Your task to perform on an android device: Search for pizza restaurants on Maps Image 0: 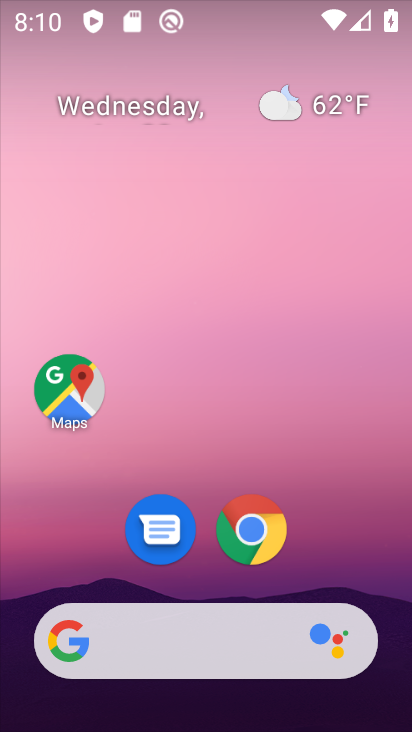
Step 0: drag from (237, 586) to (239, 90)
Your task to perform on an android device: Search for pizza restaurants on Maps Image 1: 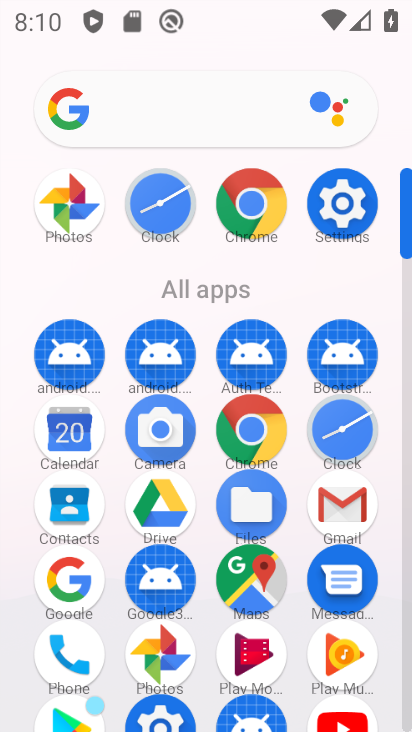
Step 1: click (259, 210)
Your task to perform on an android device: Search for pizza restaurants on Maps Image 2: 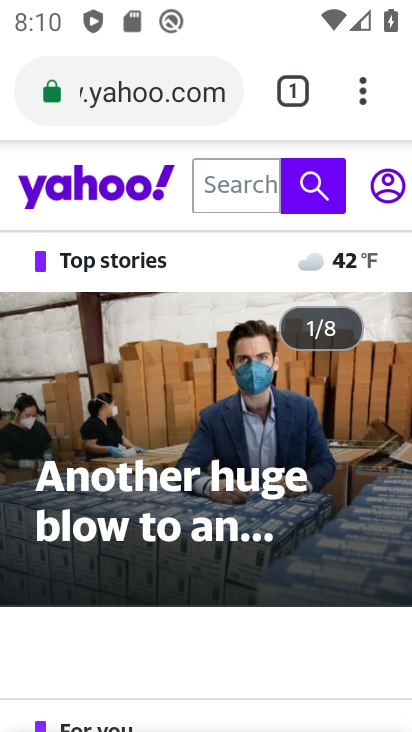
Step 2: click (367, 89)
Your task to perform on an android device: Search for pizza restaurants on Maps Image 3: 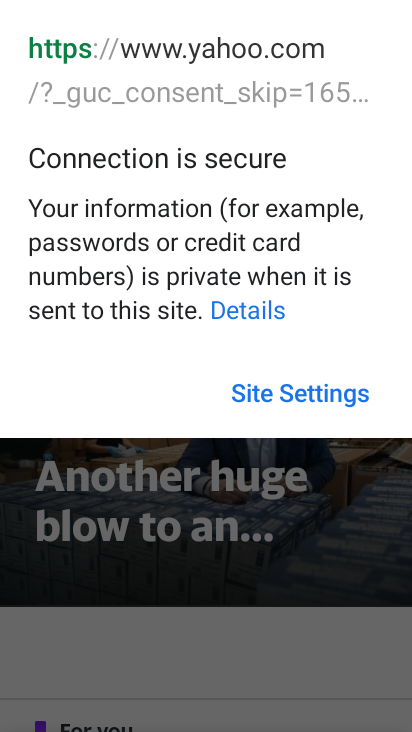
Step 3: click (291, 571)
Your task to perform on an android device: Search for pizza restaurants on Maps Image 4: 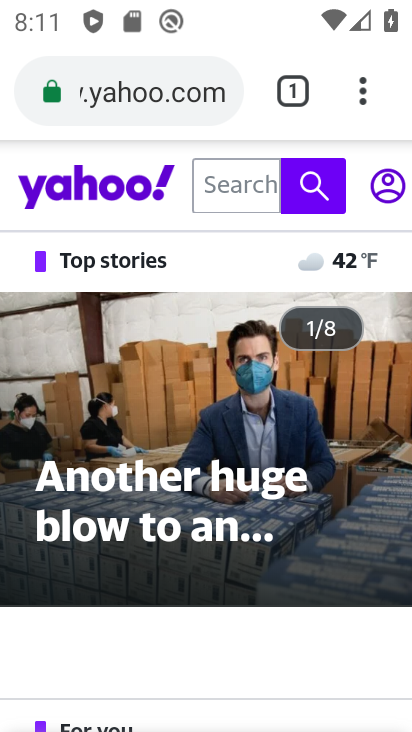
Step 4: click (365, 87)
Your task to perform on an android device: Search for pizza restaurants on Maps Image 5: 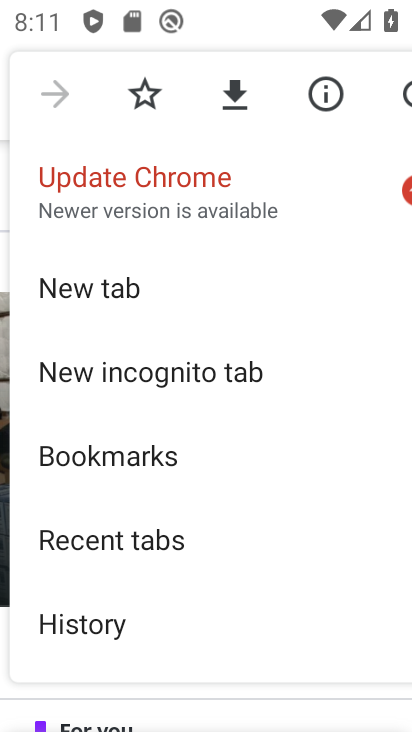
Step 5: press home button
Your task to perform on an android device: Search for pizza restaurants on Maps Image 6: 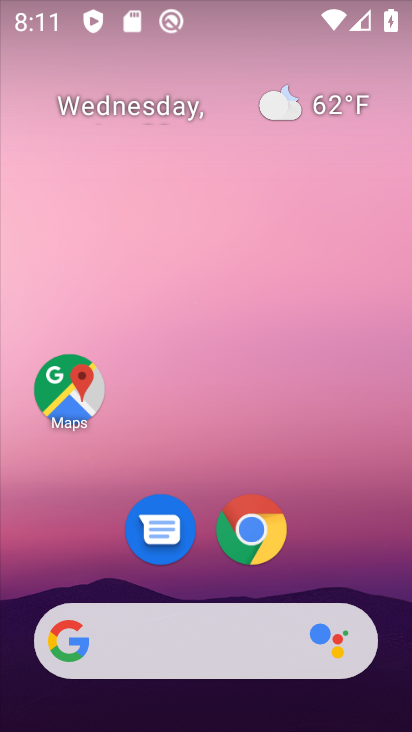
Step 6: click (75, 391)
Your task to perform on an android device: Search for pizza restaurants on Maps Image 7: 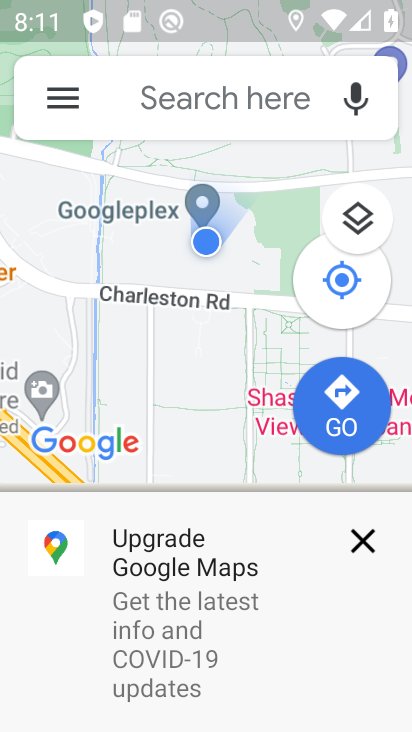
Step 7: click (196, 107)
Your task to perform on an android device: Search for pizza restaurants on Maps Image 8: 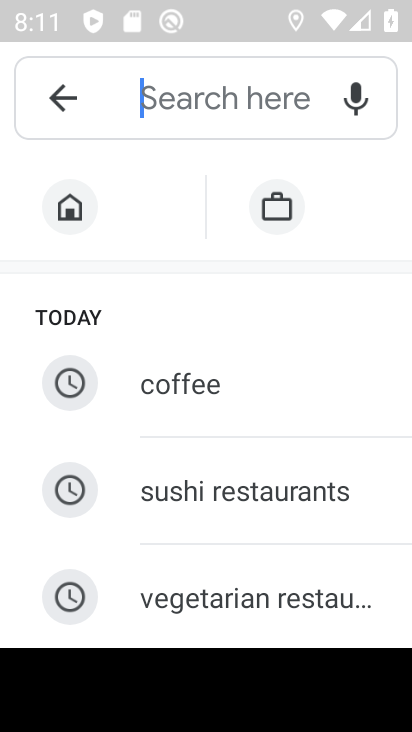
Step 8: type "pizza restaurants"
Your task to perform on an android device: Search for pizza restaurants on Maps Image 9: 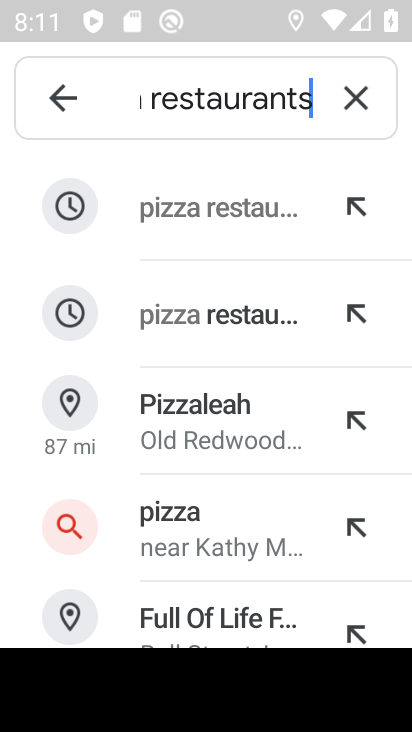
Step 9: click (275, 224)
Your task to perform on an android device: Search for pizza restaurants on Maps Image 10: 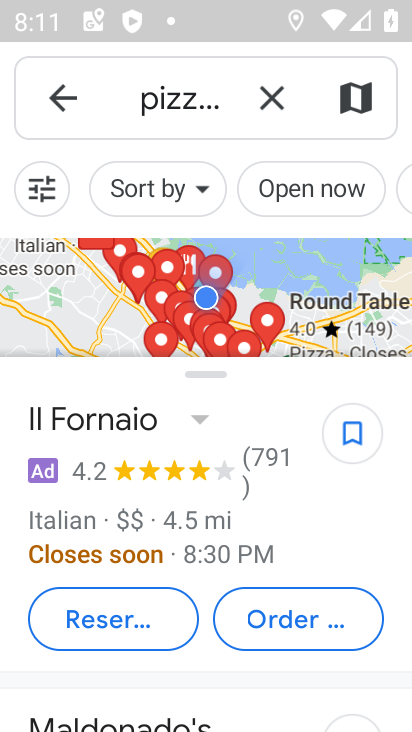
Step 10: task complete